Your task to perform on an android device: What's the news in Nepal? Image 0: 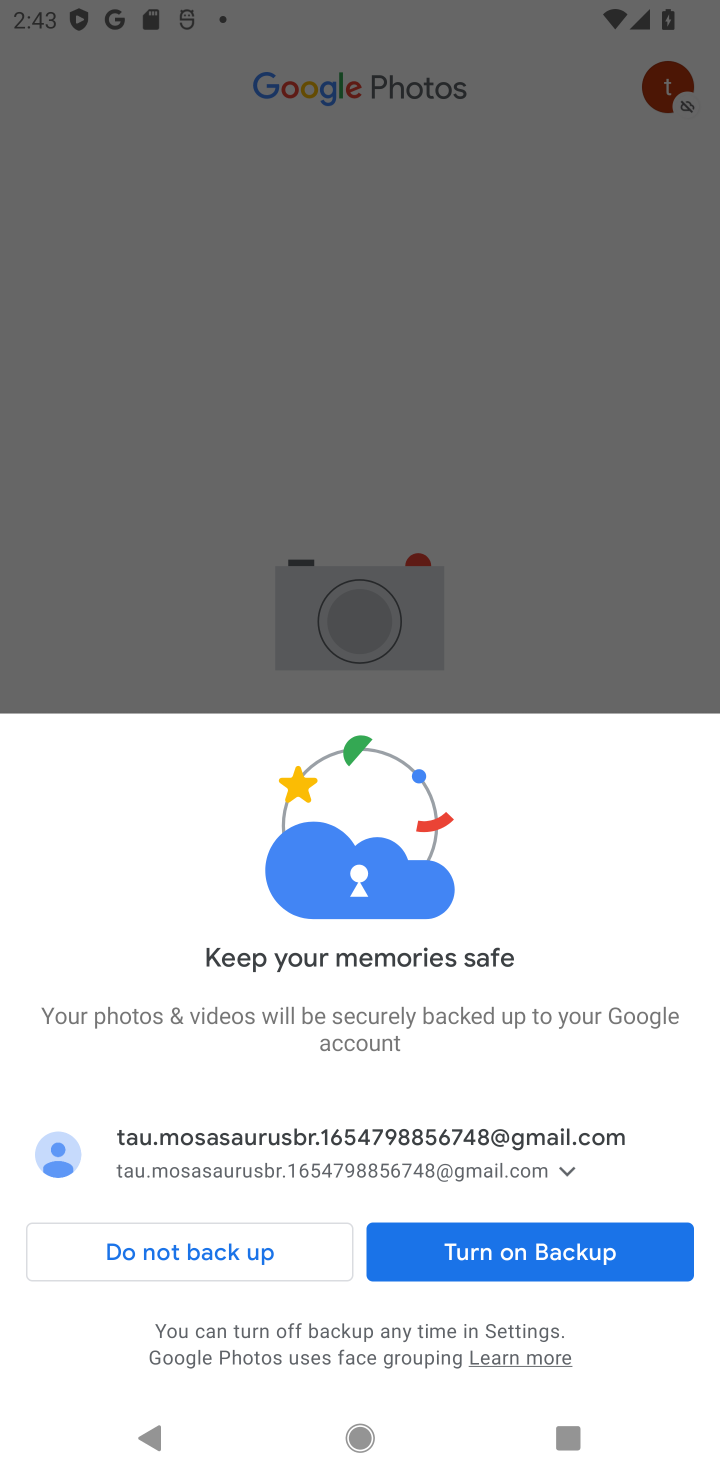
Step 0: press home button
Your task to perform on an android device: What's the news in Nepal? Image 1: 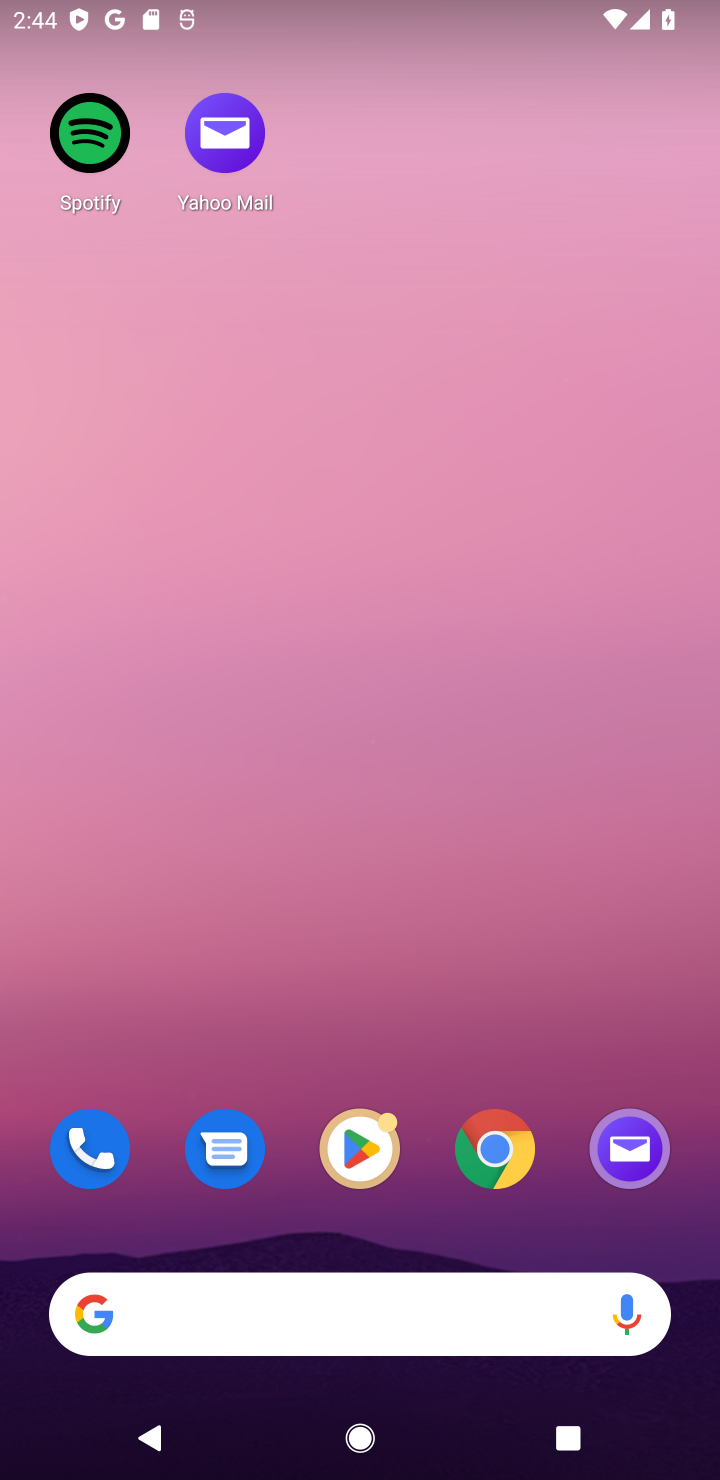
Step 1: click (206, 1313)
Your task to perform on an android device: What's the news in Nepal? Image 2: 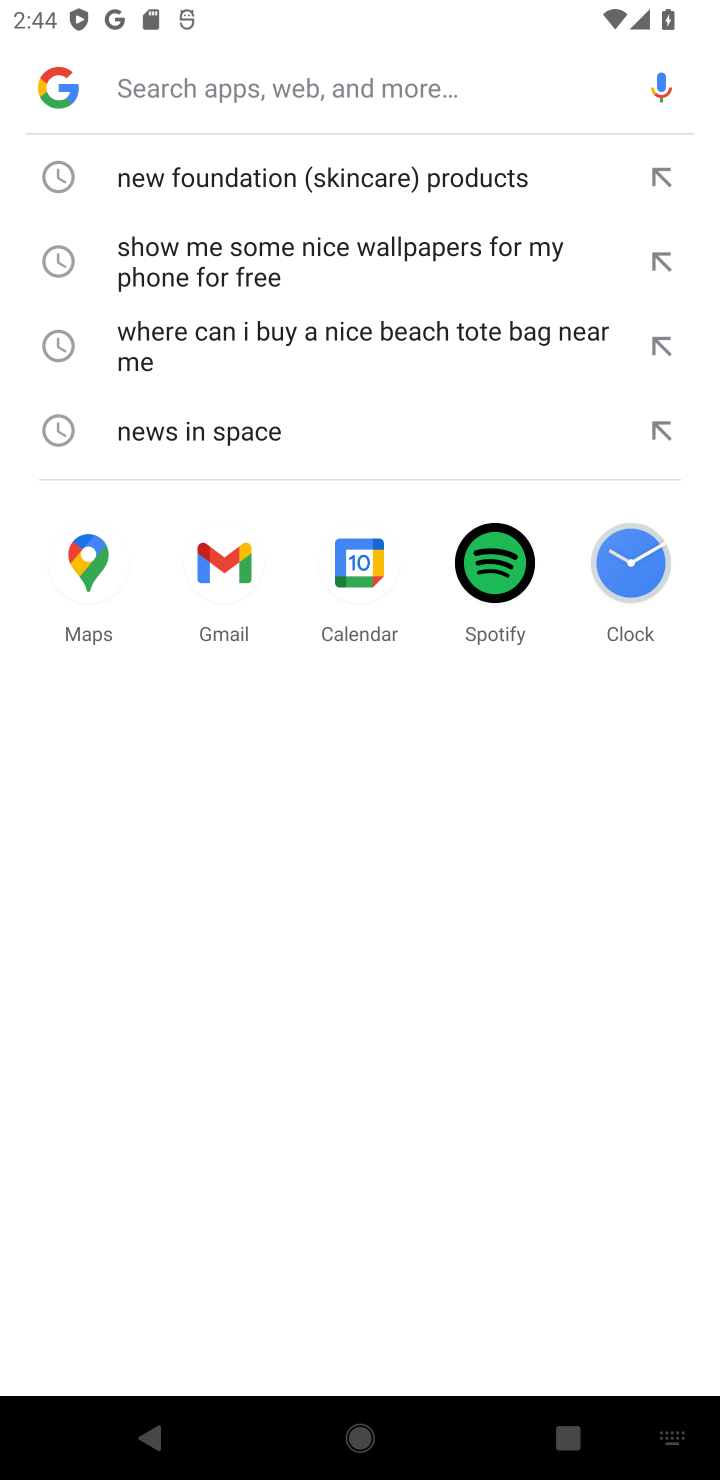
Step 2: type "news in Nepal?"
Your task to perform on an android device: What's the news in Nepal? Image 3: 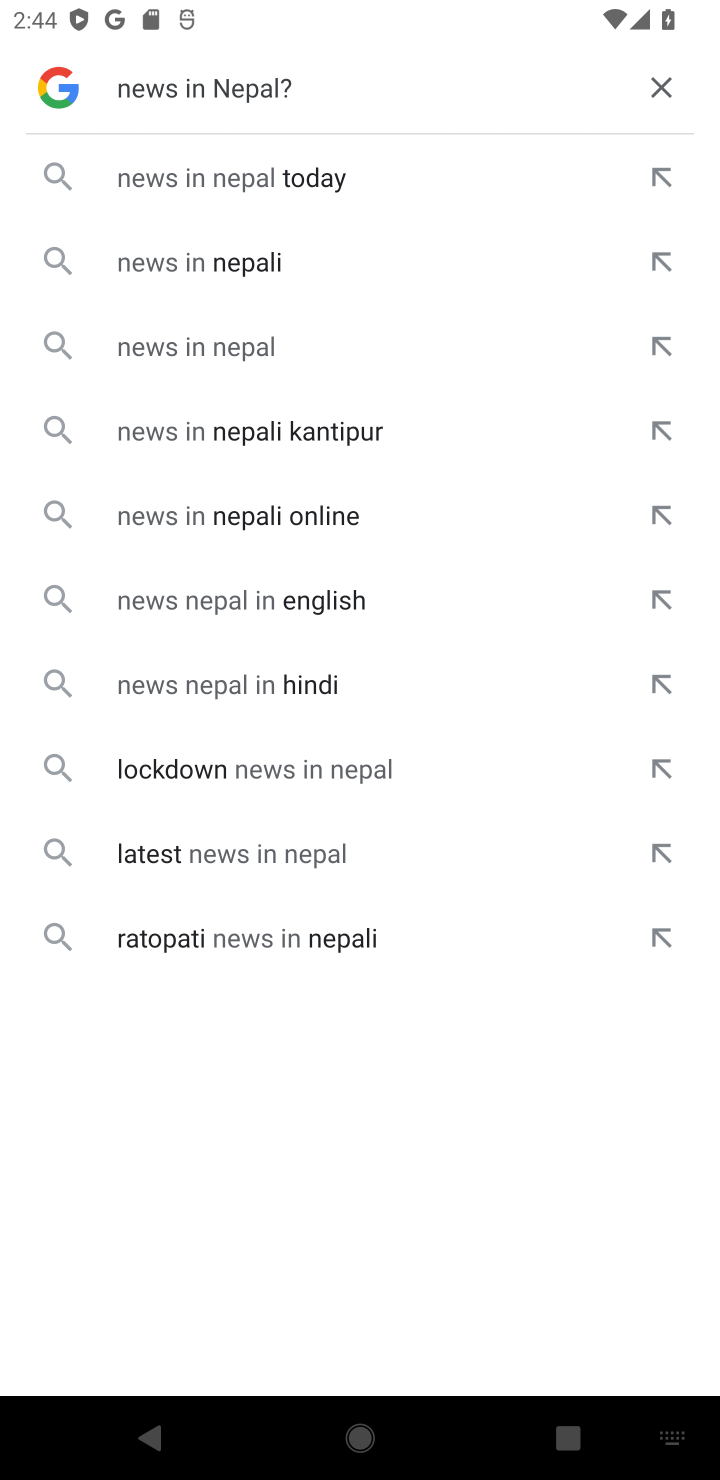
Step 3: click (356, 182)
Your task to perform on an android device: What's the news in Nepal? Image 4: 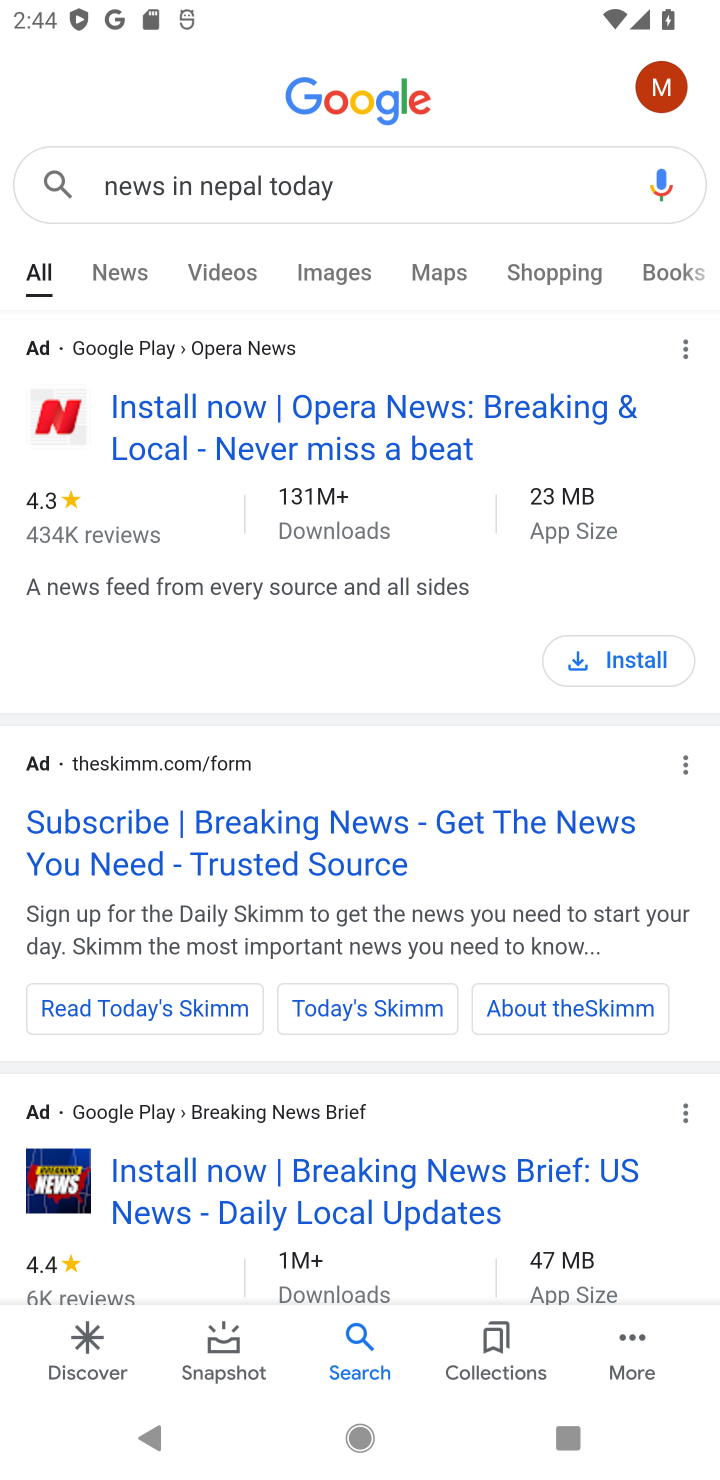
Step 4: task complete